Your task to perform on an android device: Open CNN.com Image 0: 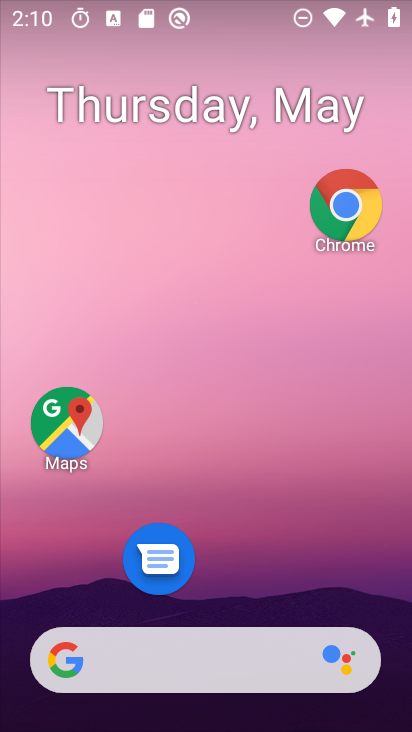
Step 0: drag from (296, 537) to (317, 171)
Your task to perform on an android device: Open CNN.com Image 1: 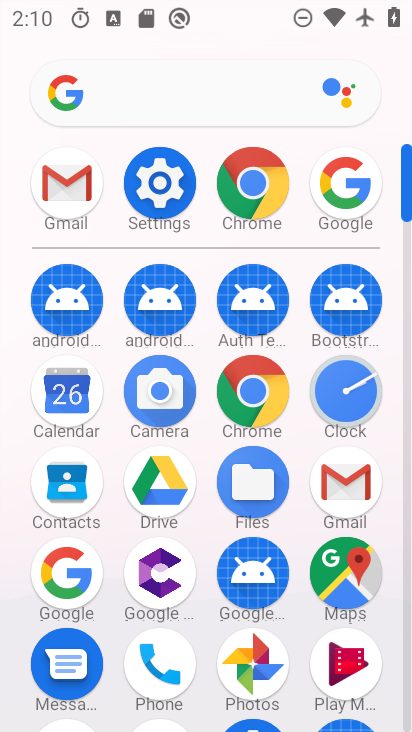
Step 1: click (254, 203)
Your task to perform on an android device: Open CNN.com Image 2: 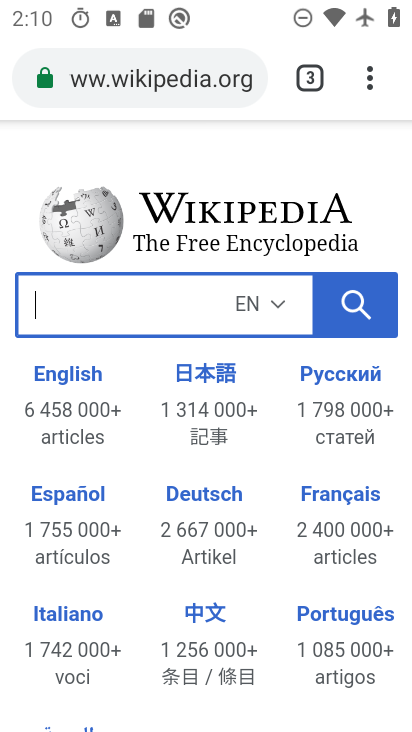
Step 2: click (243, 79)
Your task to perform on an android device: Open CNN.com Image 3: 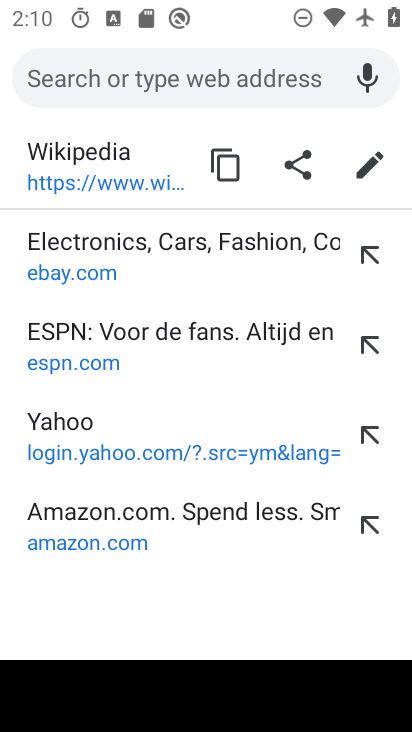
Step 3: type "cnn"
Your task to perform on an android device: Open CNN.com Image 4: 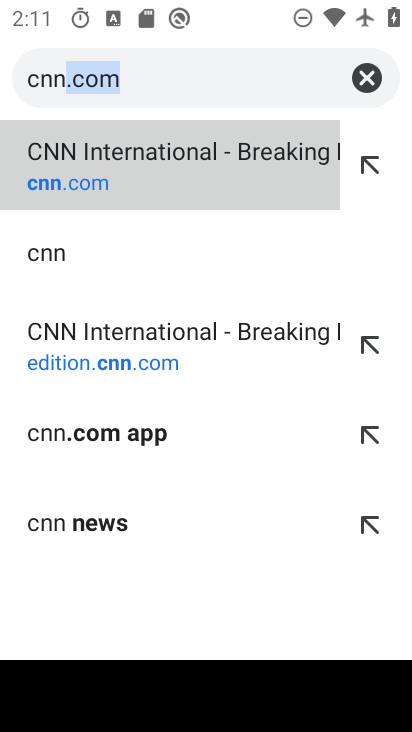
Step 4: click (205, 347)
Your task to perform on an android device: Open CNN.com Image 5: 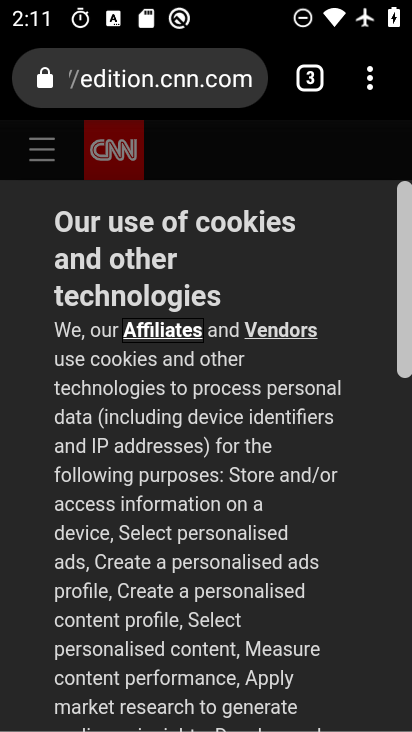
Step 5: task complete